Your task to perform on an android device: Search for a new nail polish Image 0: 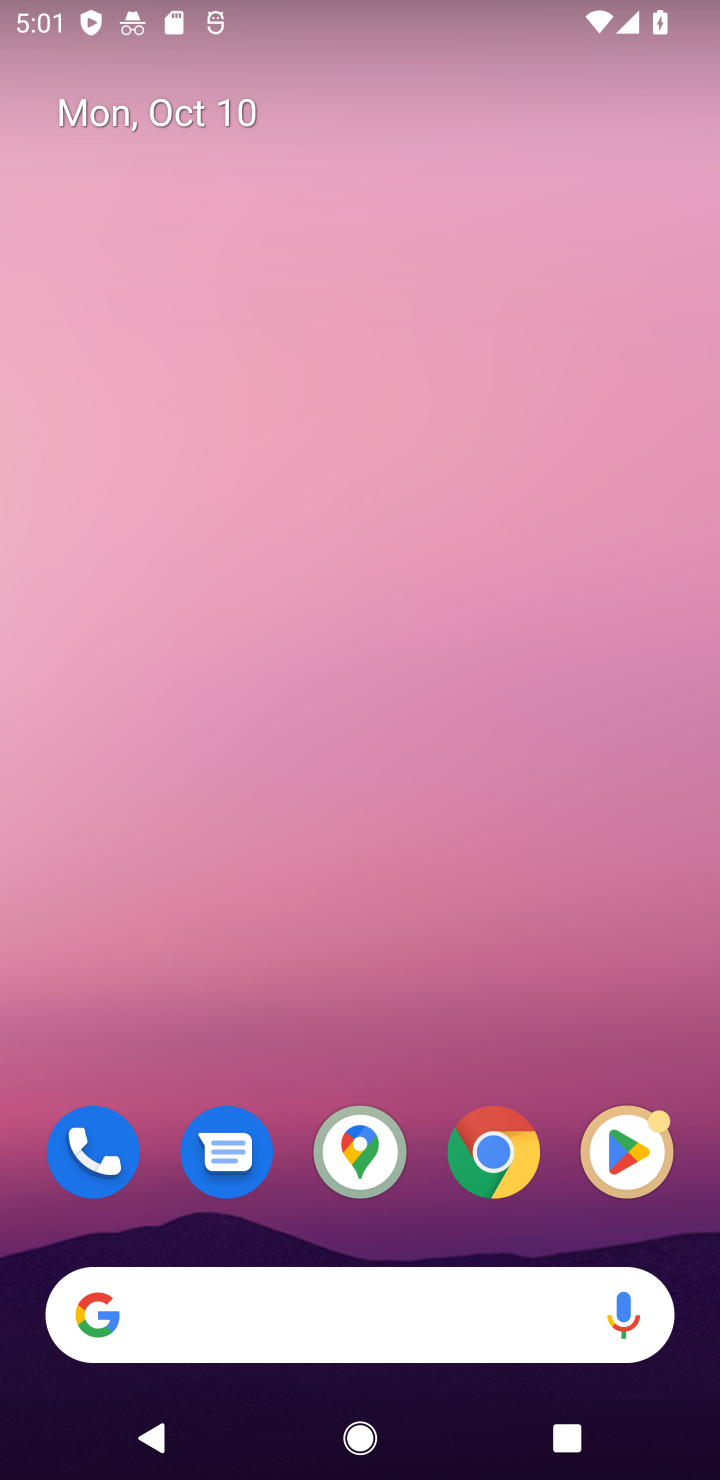
Step 0: click (491, 1152)
Your task to perform on an android device: Search for a new nail polish Image 1: 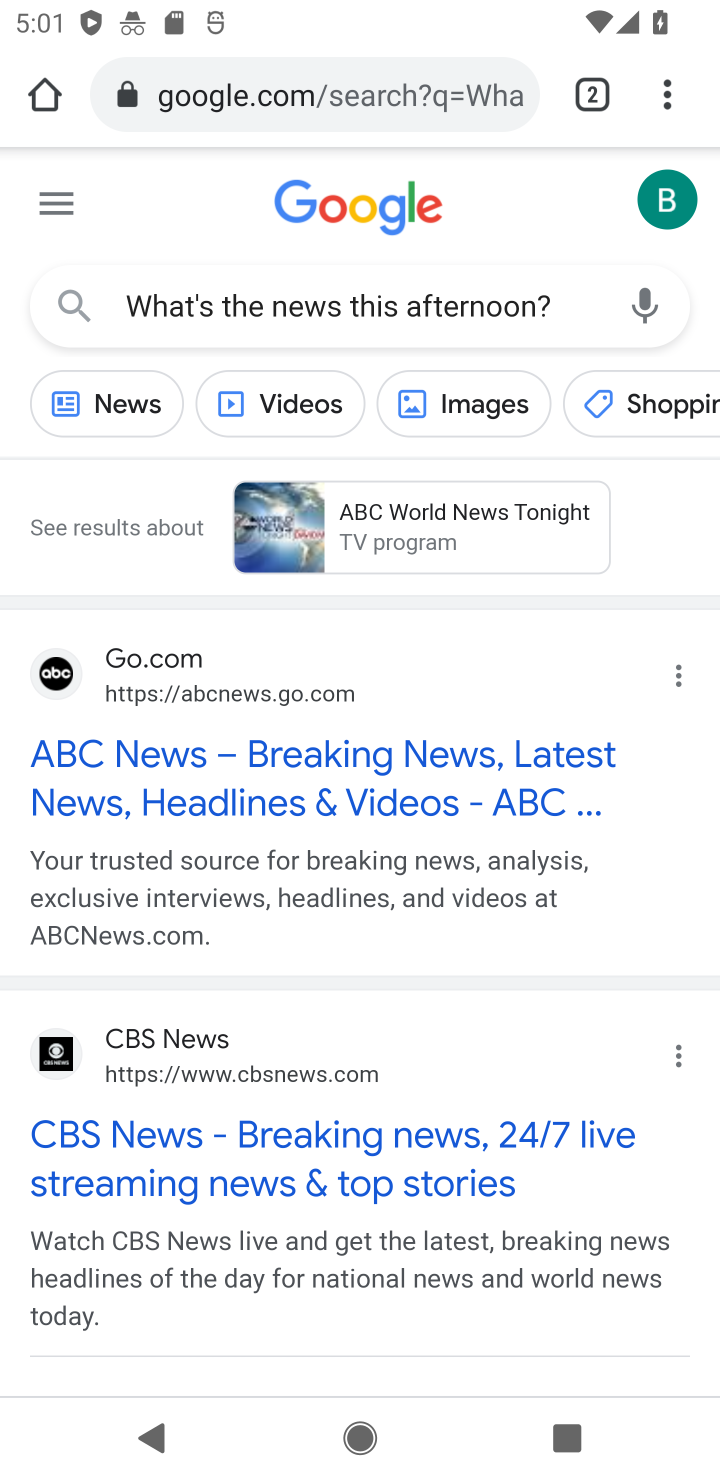
Step 1: click (363, 84)
Your task to perform on an android device: Search for a new nail polish Image 2: 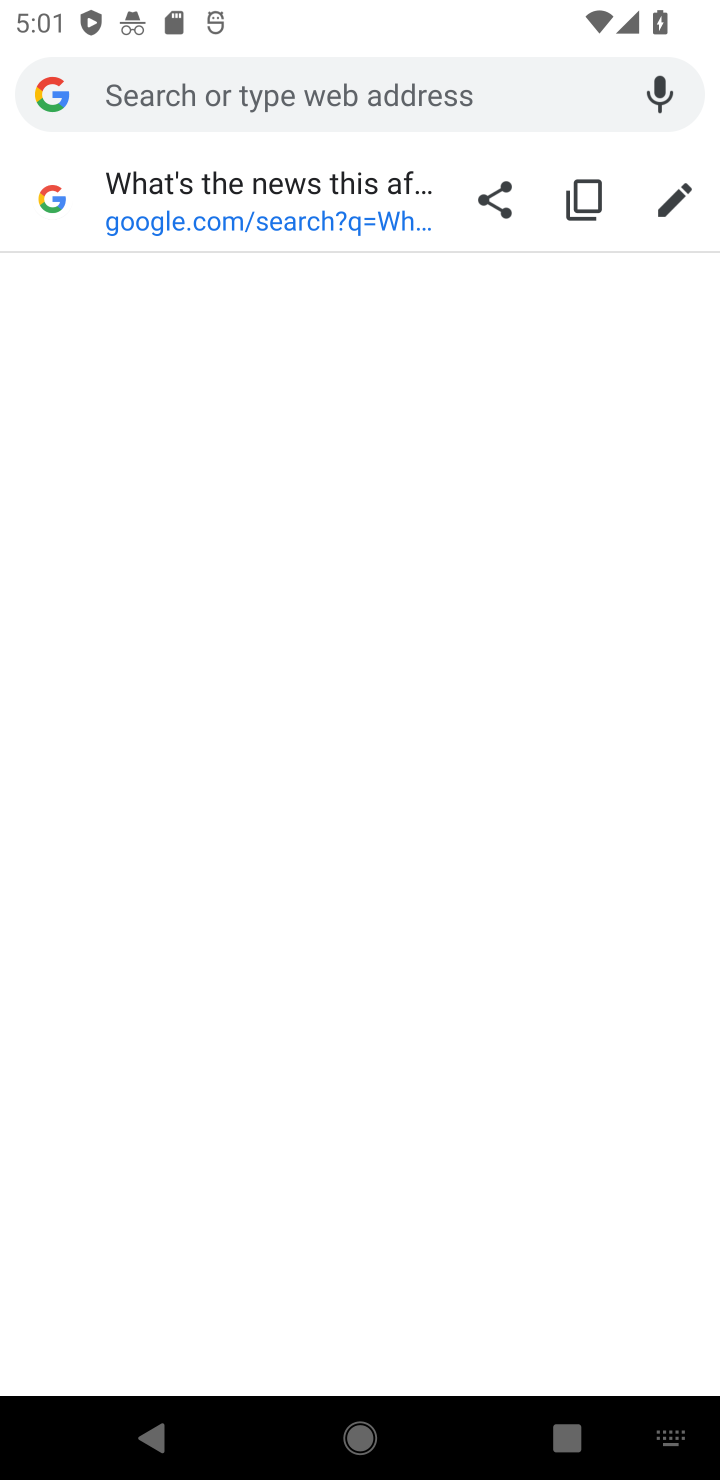
Step 2: type "new nail polish"
Your task to perform on an android device: Search for a new nail polish Image 3: 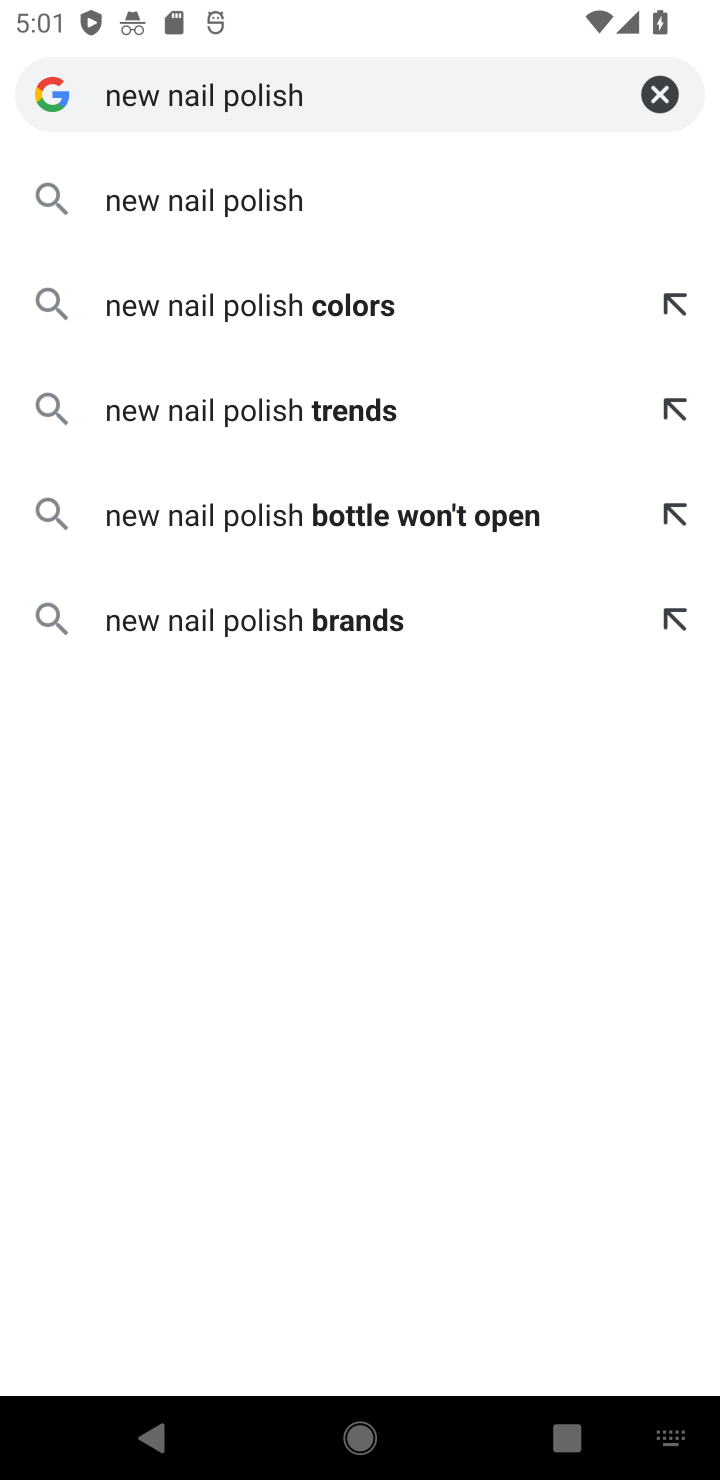
Step 3: click (256, 199)
Your task to perform on an android device: Search for a new nail polish Image 4: 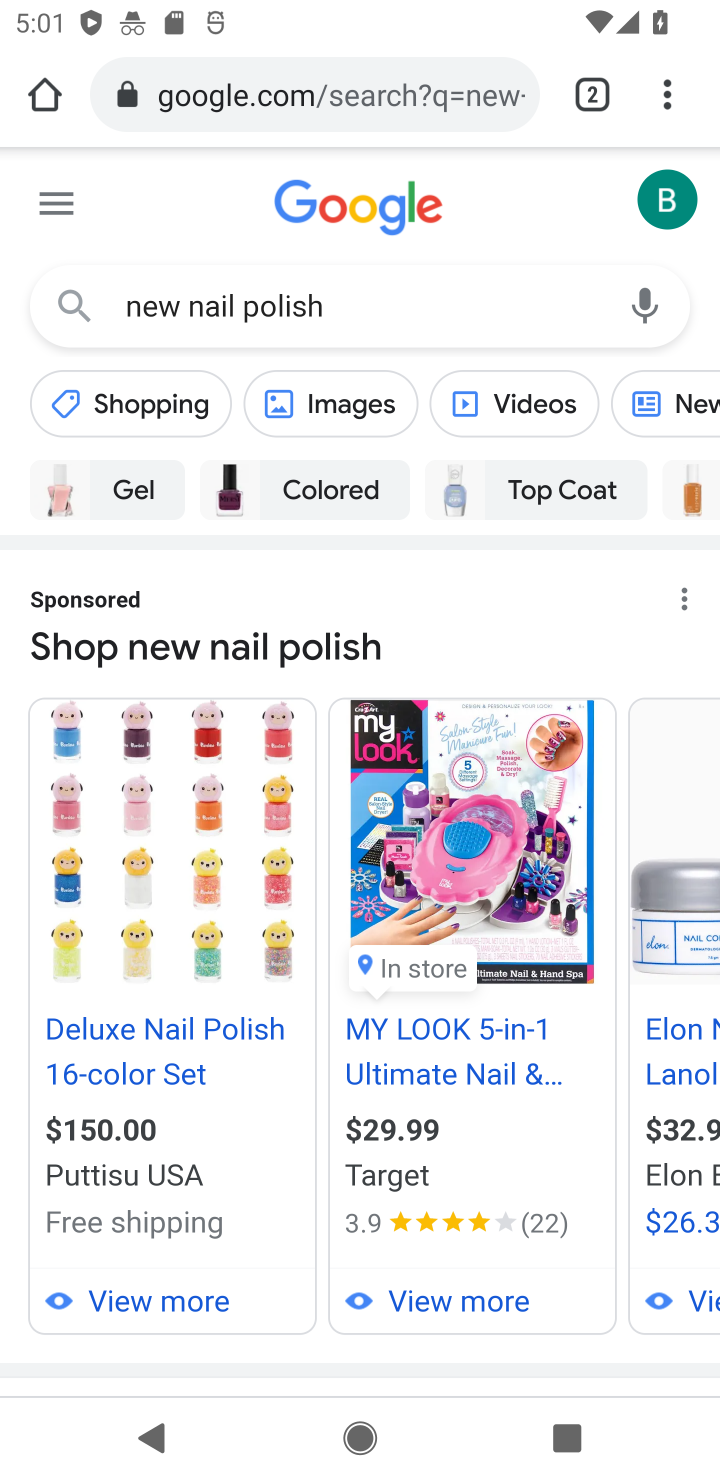
Step 4: task complete